Your task to perform on an android device: turn pop-ups off in chrome Image 0: 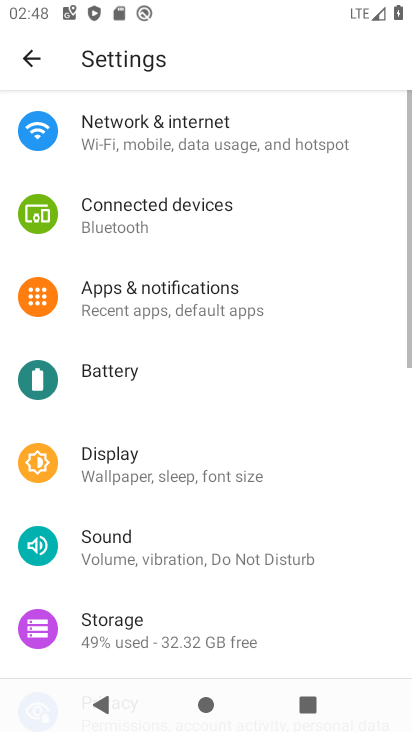
Step 0: drag from (205, 578) to (318, 75)
Your task to perform on an android device: turn pop-ups off in chrome Image 1: 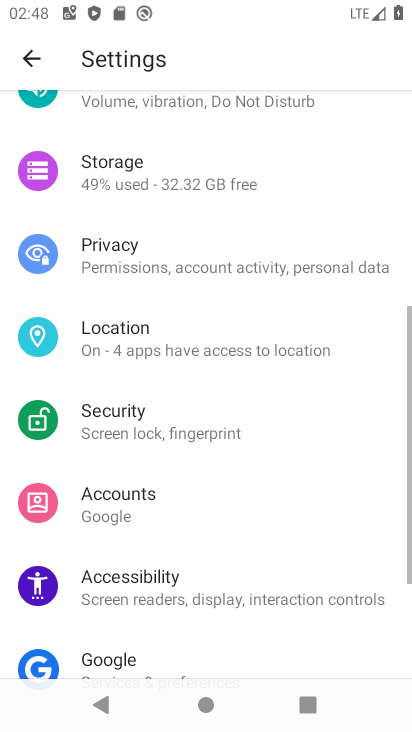
Step 1: drag from (216, 247) to (397, 601)
Your task to perform on an android device: turn pop-ups off in chrome Image 2: 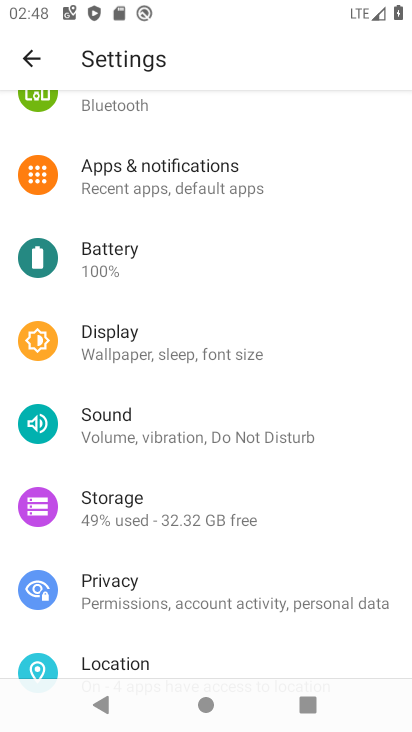
Step 2: press home button
Your task to perform on an android device: turn pop-ups off in chrome Image 3: 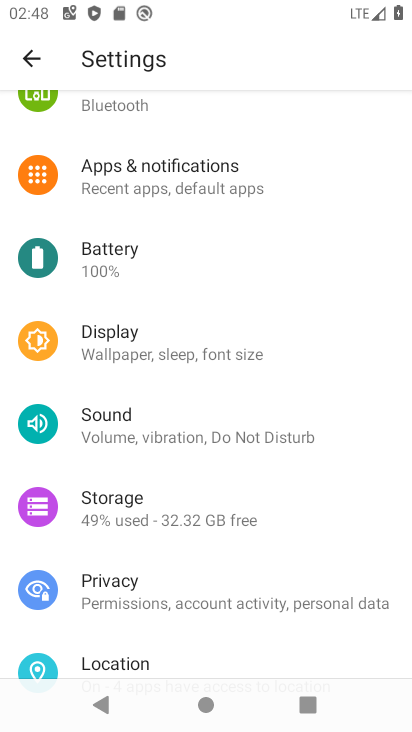
Step 3: drag from (397, 601) to (380, 531)
Your task to perform on an android device: turn pop-ups off in chrome Image 4: 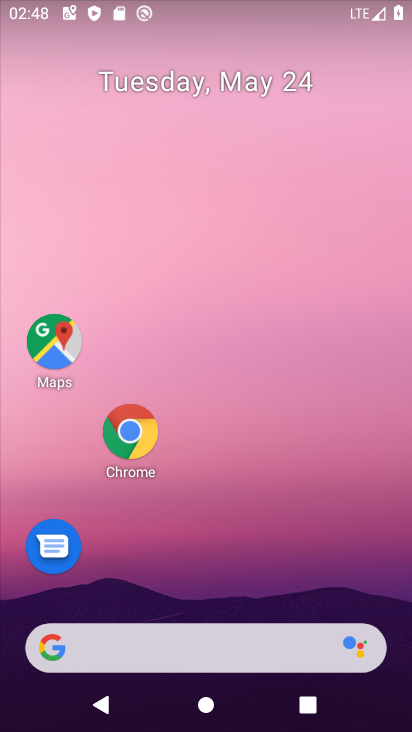
Step 4: click (118, 428)
Your task to perform on an android device: turn pop-ups off in chrome Image 5: 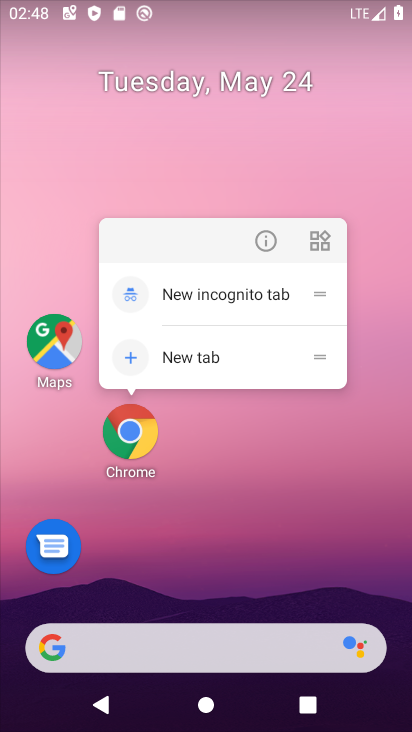
Step 5: click (265, 248)
Your task to perform on an android device: turn pop-ups off in chrome Image 6: 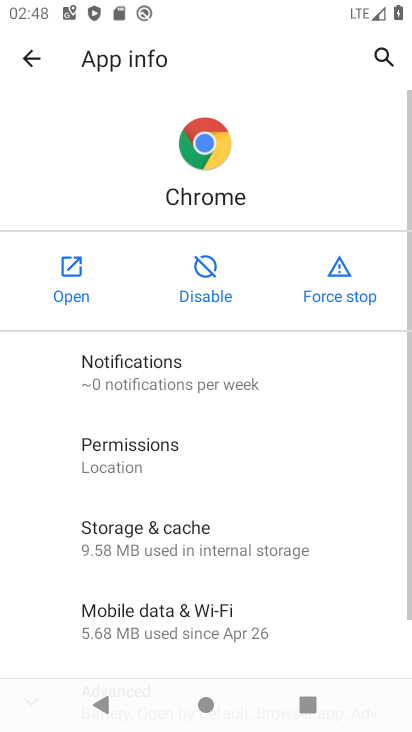
Step 6: click (85, 270)
Your task to perform on an android device: turn pop-ups off in chrome Image 7: 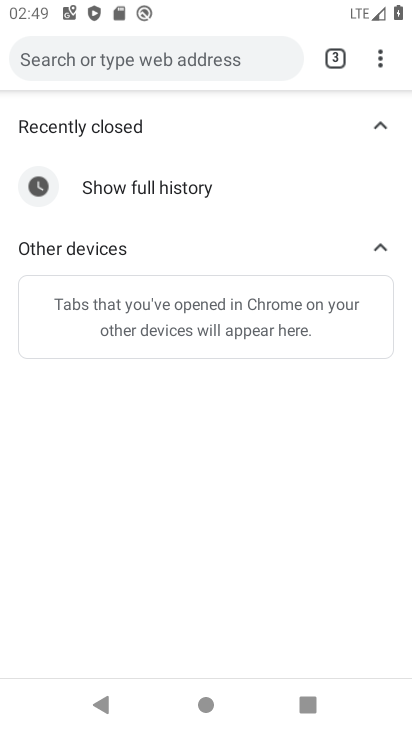
Step 7: click (381, 56)
Your task to perform on an android device: turn pop-ups off in chrome Image 8: 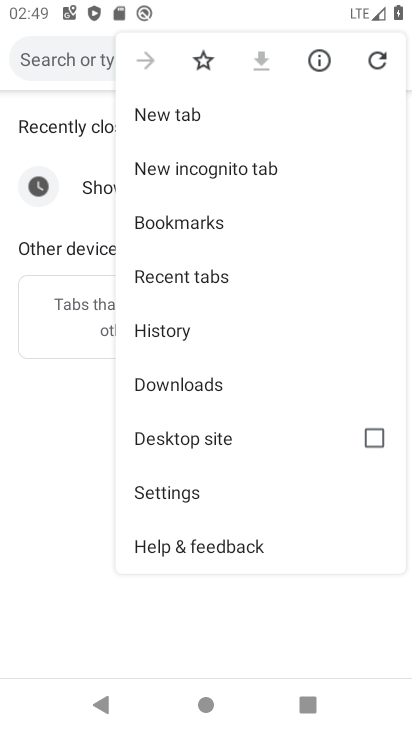
Step 8: click (233, 497)
Your task to perform on an android device: turn pop-ups off in chrome Image 9: 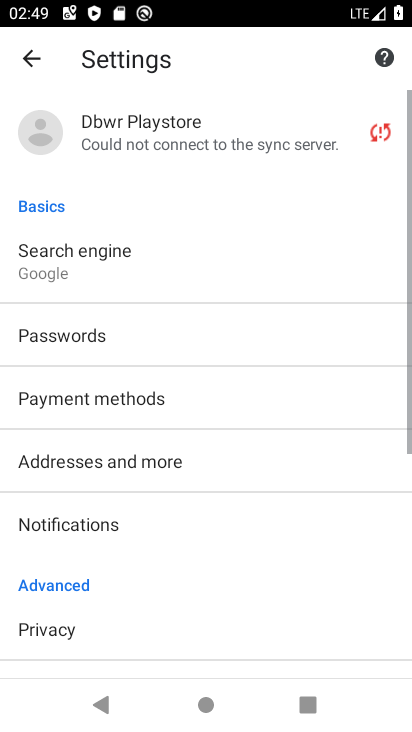
Step 9: drag from (235, 489) to (328, 88)
Your task to perform on an android device: turn pop-ups off in chrome Image 10: 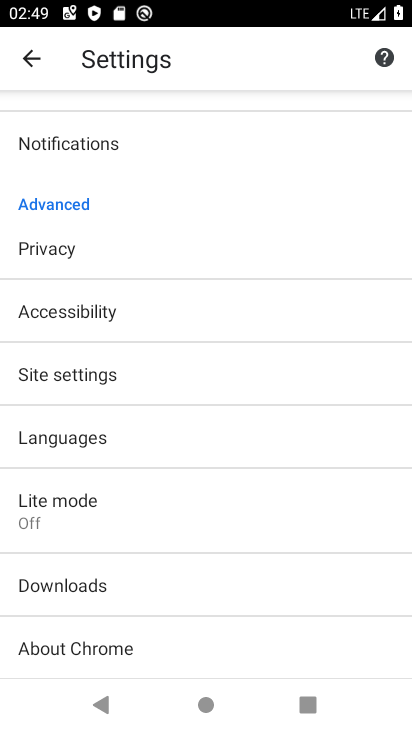
Step 10: click (176, 358)
Your task to perform on an android device: turn pop-ups off in chrome Image 11: 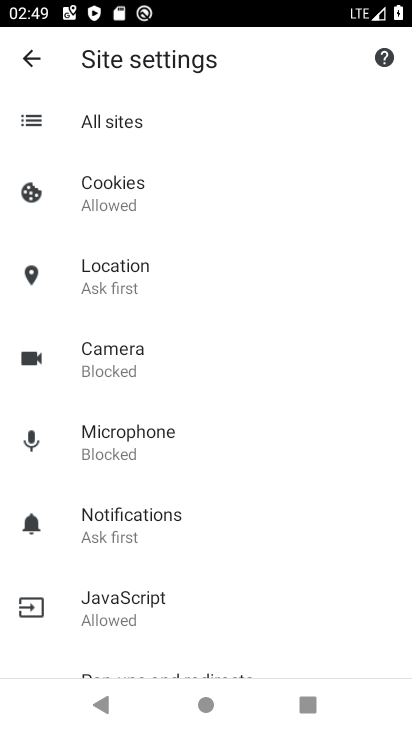
Step 11: drag from (170, 237) to (188, 402)
Your task to perform on an android device: turn pop-ups off in chrome Image 12: 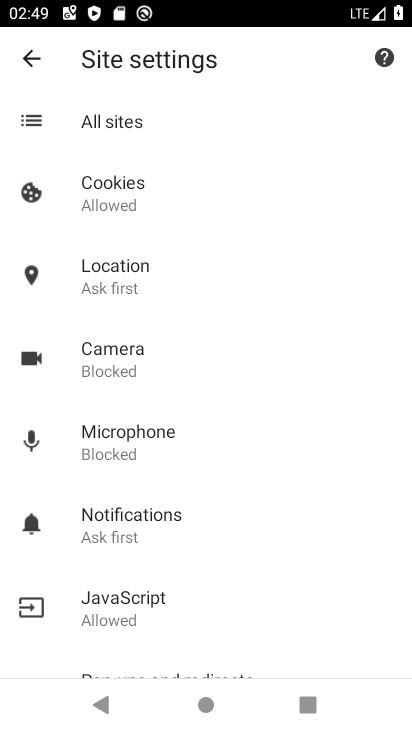
Step 12: drag from (209, 572) to (256, 193)
Your task to perform on an android device: turn pop-ups off in chrome Image 13: 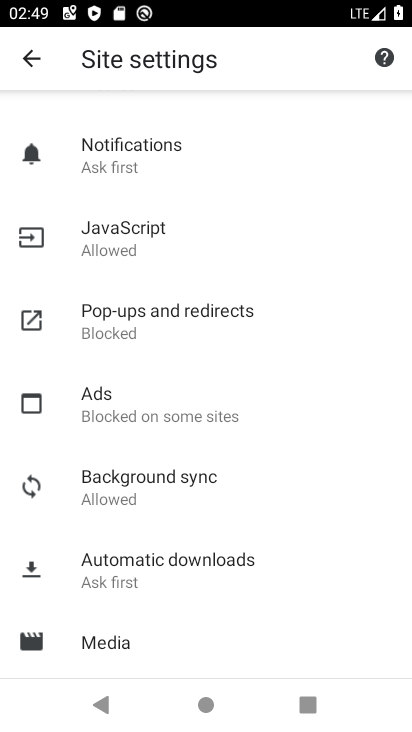
Step 13: drag from (210, 511) to (246, 247)
Your task to perform on an android device: turn pop-ups off in chrome Image 14: 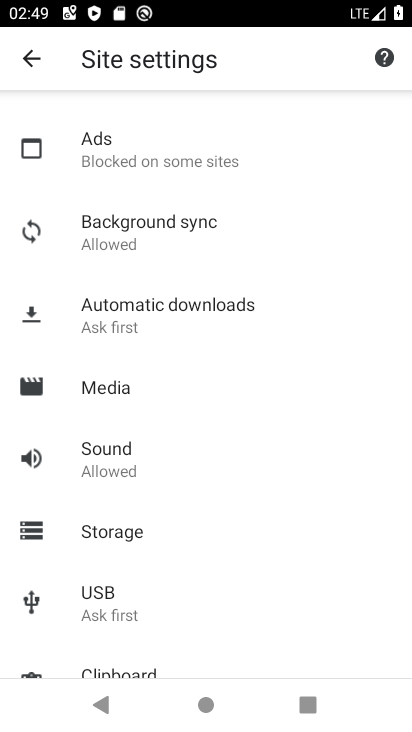
Step 14: drag from (170, 621) to (232, 266)
Your task to perform on an android device: turn pop-ups off in chrome Image 15: 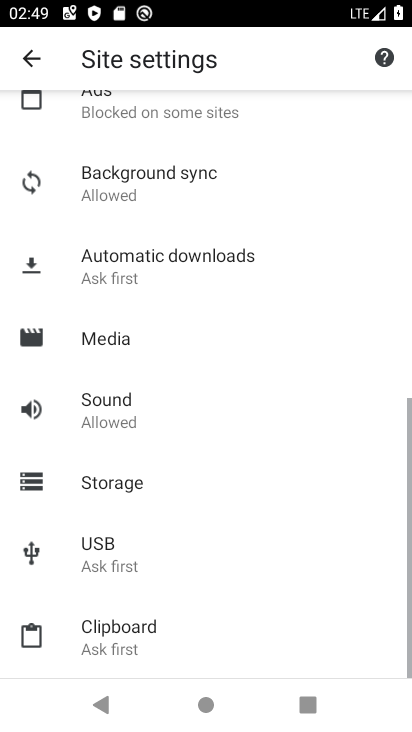
Step 15: drag from (236, 259) to (299, 660)
Your task to perform on an android device: turn pop-ups off in chrome Image 16: 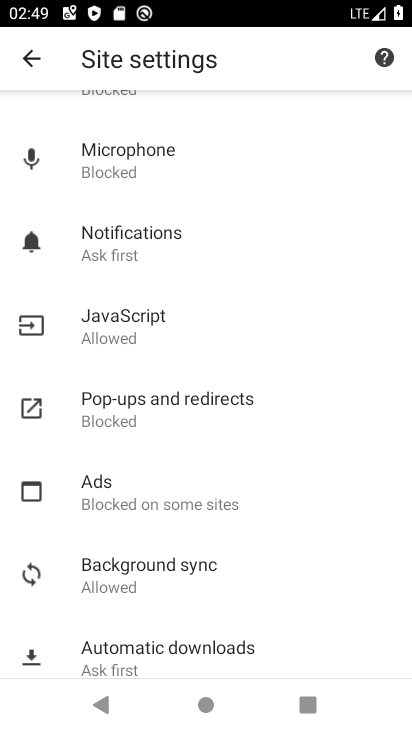
Step 16: click (198, 421)
Your task to perform on an android device: turn pop-ups off in chrome Image 17: 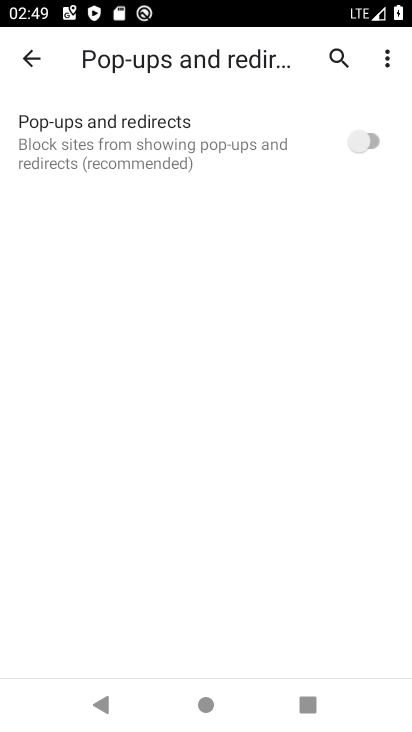
Step 17: task complete